Your task to perform on an android device: Open Yahoo.com Image 0: 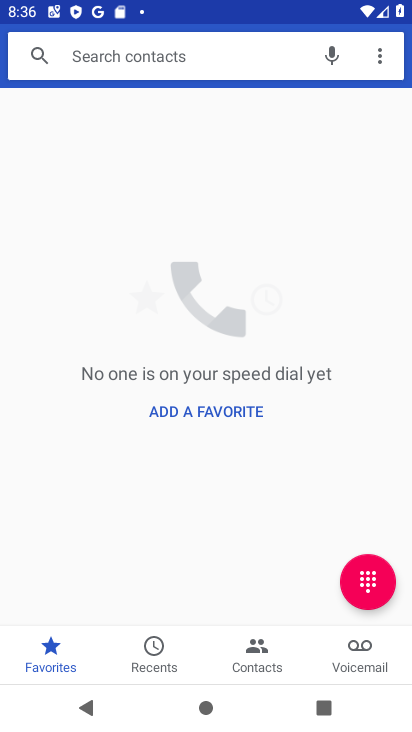
Step 0: press back button
Your task to perform on an android device: Open Yahoo.com Image 1: 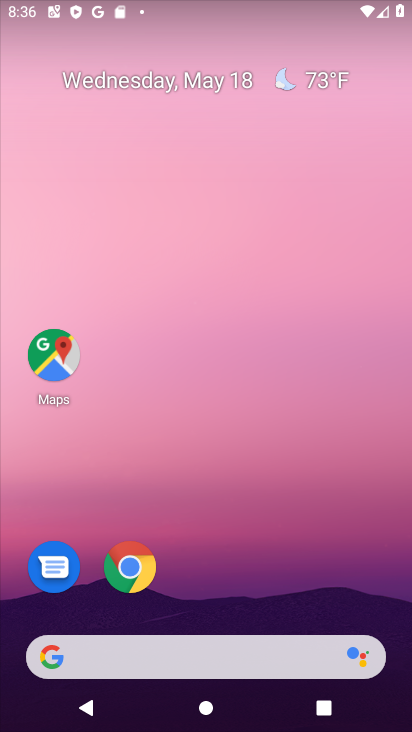
Step 1: drag from (215, 524) to (147, 12)
Your task to perform on an android device: Open Yahoo.com Image 2: 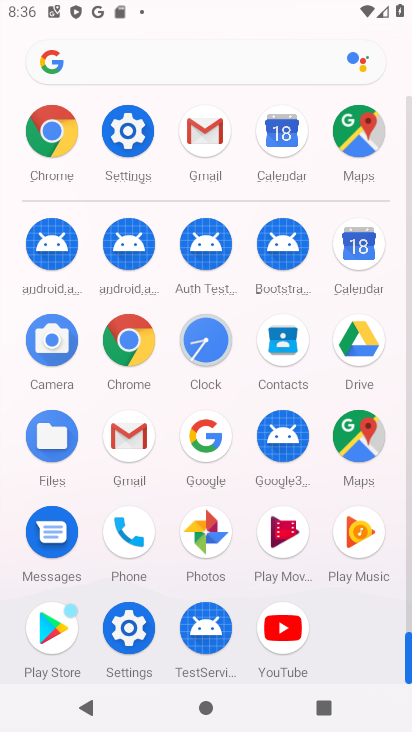
Step 2: click (129, 335)
Your task to perform on an android device: Open Yahoo.com Image 3: 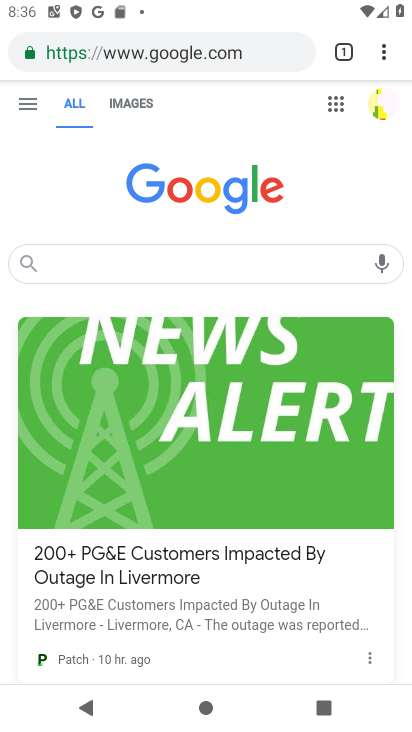
Step 3: click (176, 52)
Your task to perform on an android device: Open Yahoo.com Image 4: 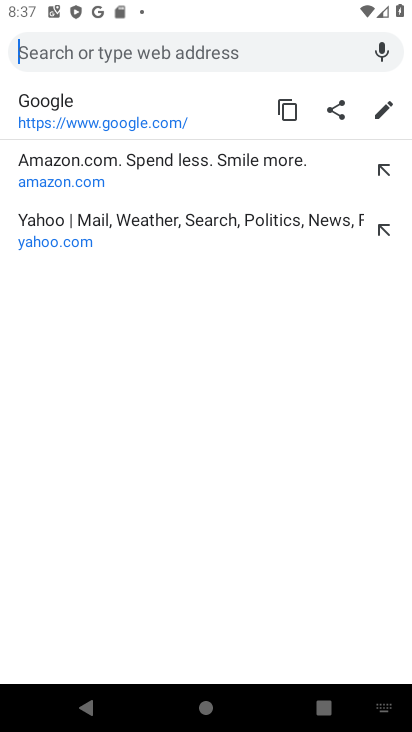
Step 4: type "Yahoo.com"
Your task to perform on an android device: Open Yahoo.com Image 5: 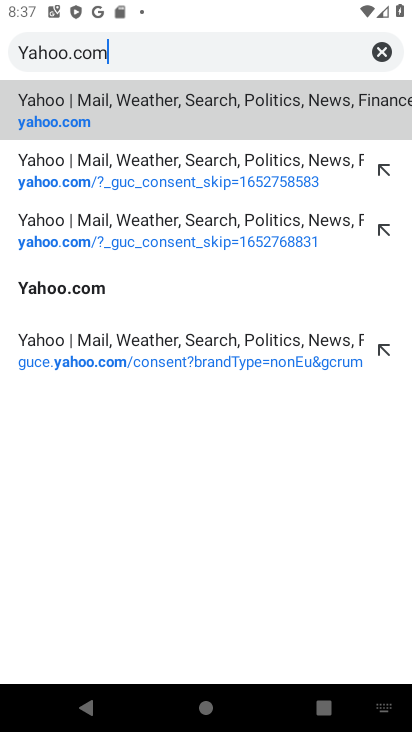
Step 5: type ""
Your task to perform on an android device: Open Yahoo.com Image 6: 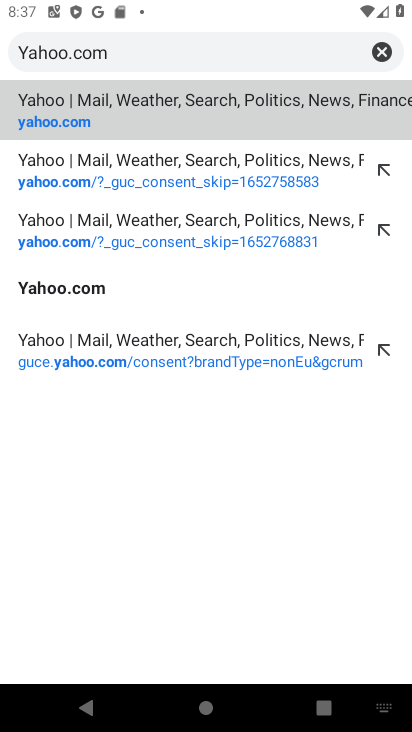
Step 6: click (157, 121)
Your task to perform on an android device: Open Yahoo.com Image 7: 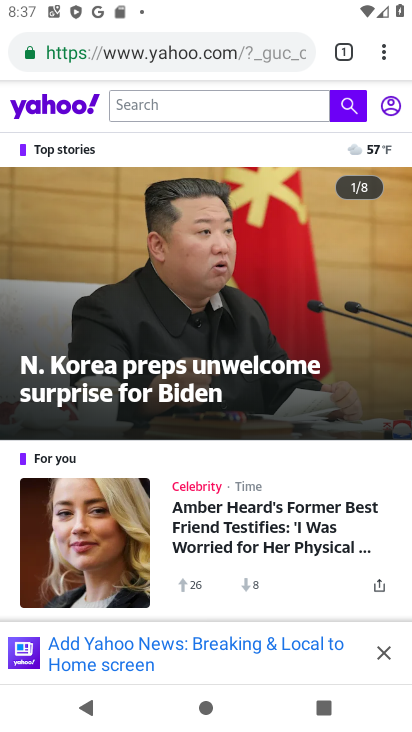
Step 7: task complete